Your task to perform on an android device: Turn off the flashlight Image 0: 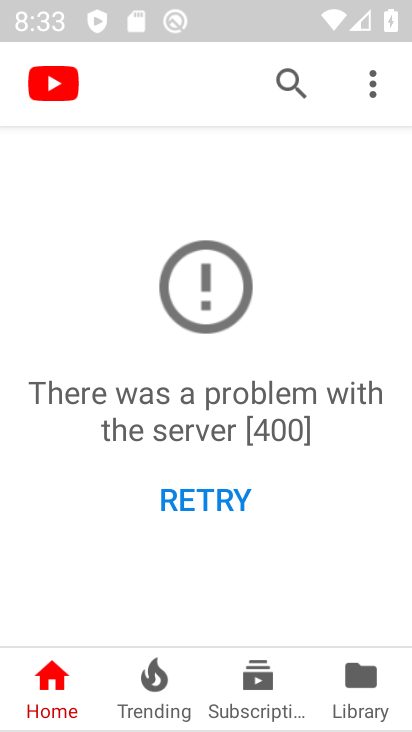
Step 0: press home button
Your task to perform on an android device: Turn off the flashlight Image 1: 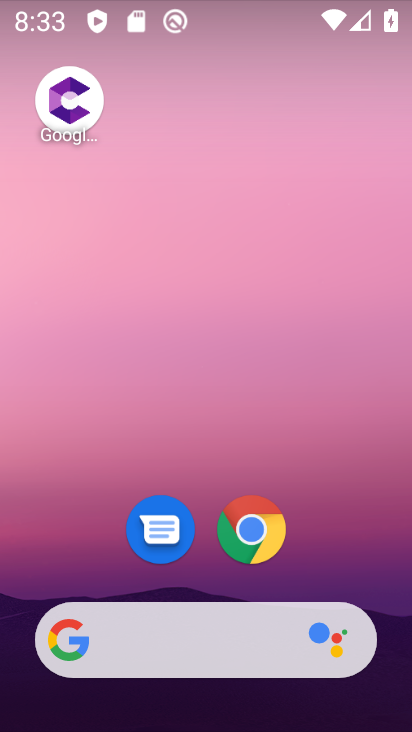
Step 1: drag from (239, 7) to (263, 505)
Your task to perform on an android device: Turn off the flashlight Image 2: 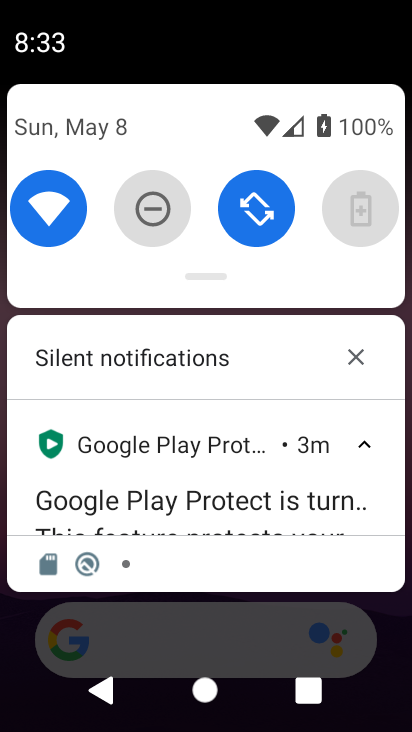
Step 2: drag from (189, 267) to (182, 557)
Your task to perform on an android device: Turn off the flashlight Image 3: 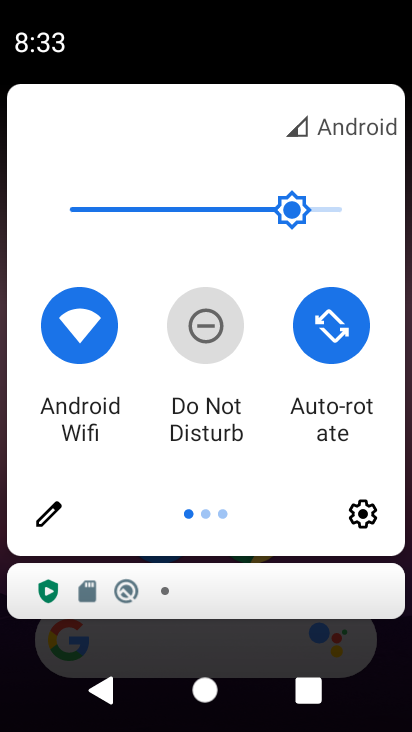
Step 3: drag from (255, 386) to (18, 398)
Your task to perform on an android device: Turn off the flashlight Image 4: 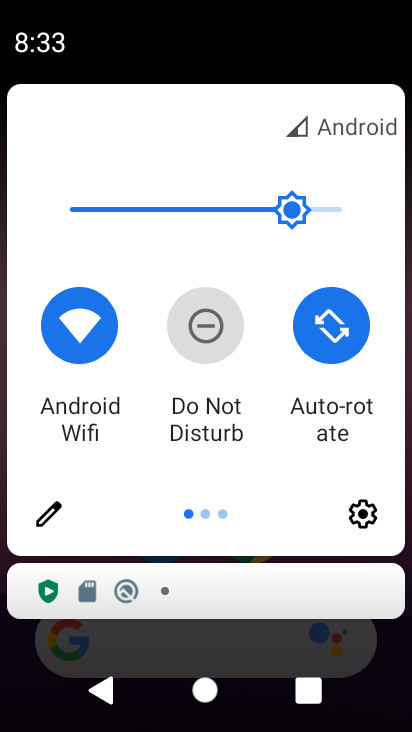
Step 4: drag from (287, 364) to (20, 453)
Your task to perform on an android device: Turn off the flashlight Image 5: 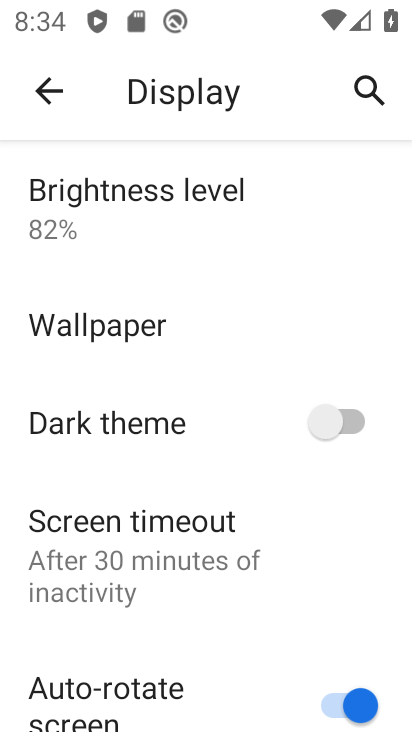
Step 5: click (40, 91)
Your task to perform on an android device: Turn off the flashlight Image 6: 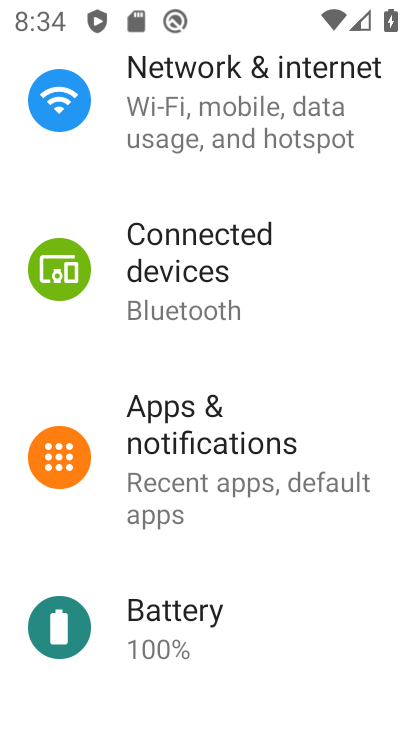
Step 6: task complete